Your task to perform on an android device: delete browsing data in the chrome app Image 0: 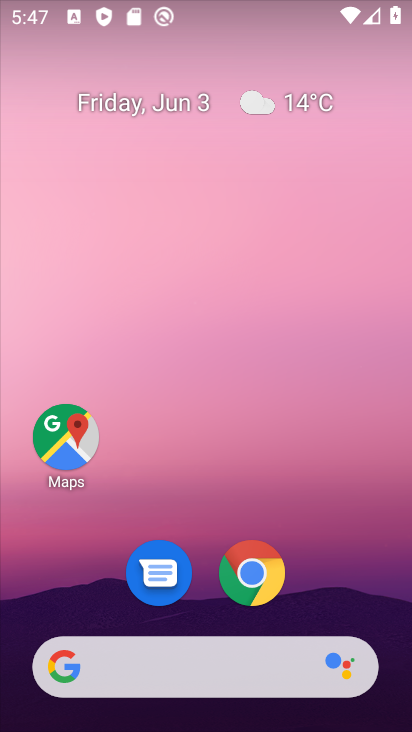
Step 0: drag from (250, 680) to (213, 95)
Your task to perform on an android device: delete browsing data in the chrome app Image 1: 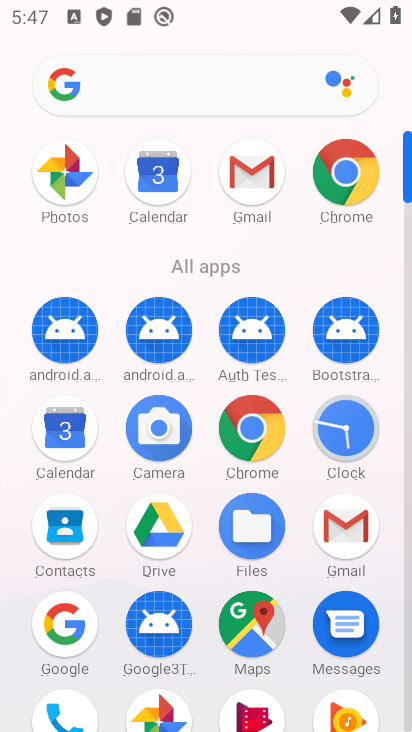
Step 1: click (252, 451)
Your task to perform on an android device: delete browsing data in the chrome app Image 2: 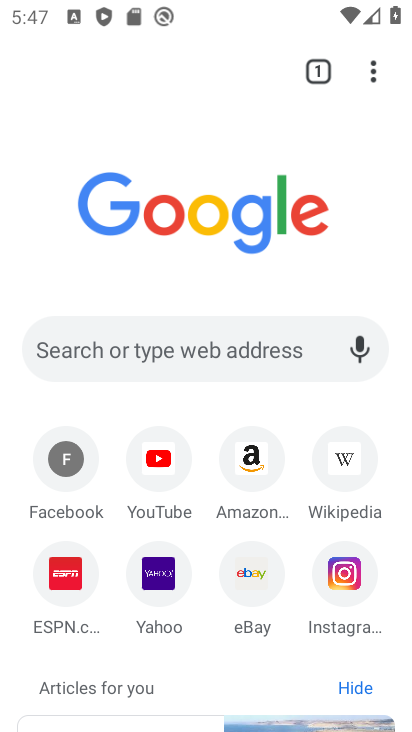
Step 2: drag from (375, 68) to (149, 609)
Your task to perform on an android device: delete browsing data in the chrome app Image 3: 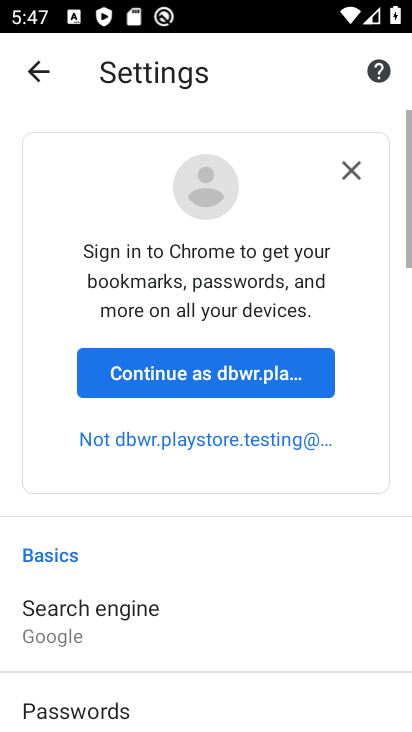
Step 3: drag from (175, 609) to (173, 115)
Your task to perform on an android device: delete browsing data in the chrome app Image 4: 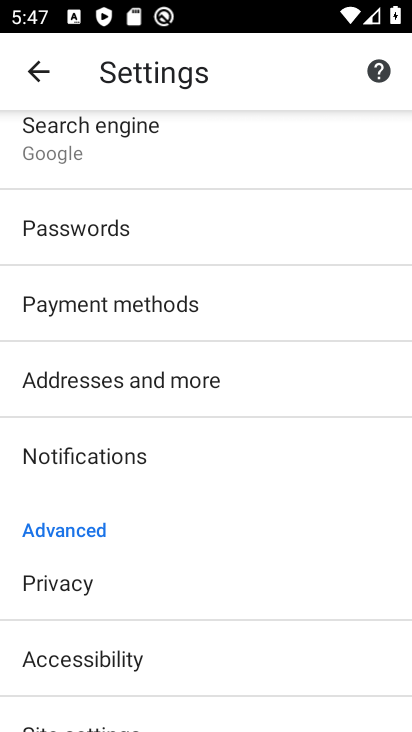
Step 4: click (110, 579)
Your task to perform on an android device: delete browsing data in the chrome app Image 5: 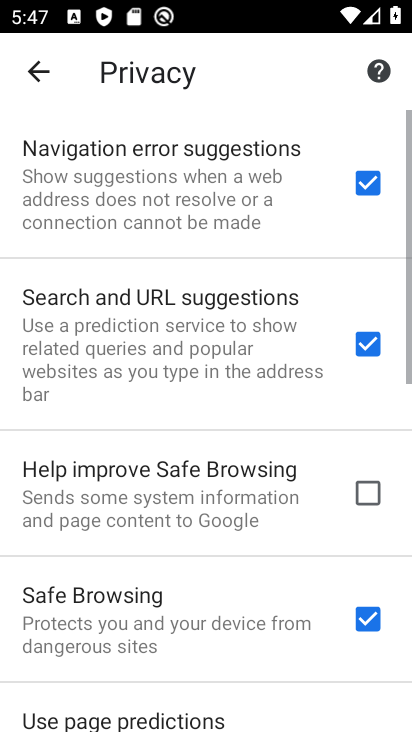
Step 5: drag from (231, 675) to (257, 55)
Your task to perform on an android device: delete browsing data in the chrome app Image 6: 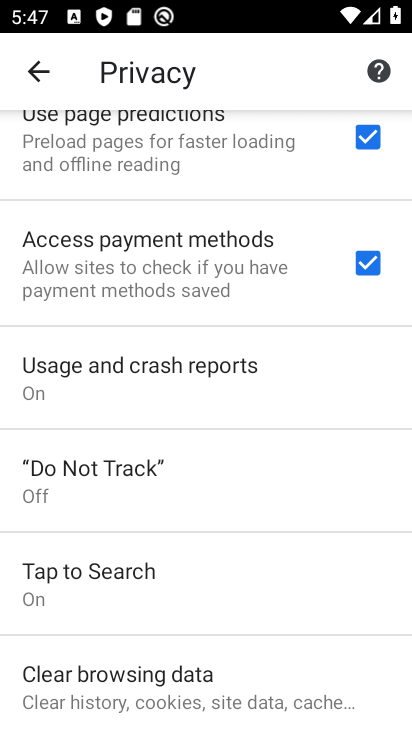
Step 6: drag from (260, 677) to (247, 248)
Your task to perform on an android device: delete browsing data in the chrome app Image 7: 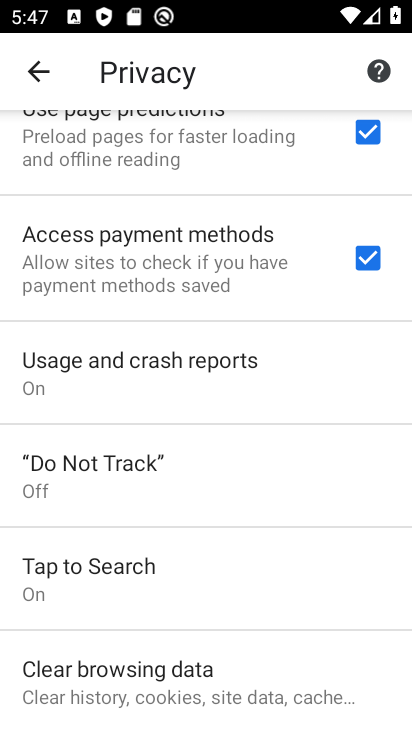
Step 7: click (232, 681)
Your task to perform on an android device: delete browsing data in the chrome app Image 8: 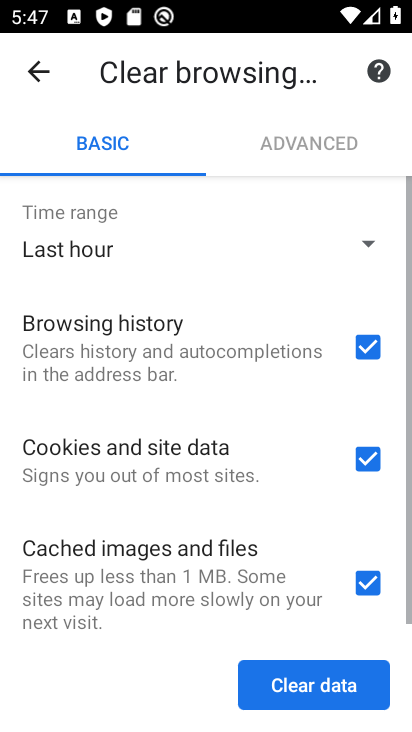
Step 8: click (317, 679)
Your task to perform on an android device: delete browsing data in the chrome app Image 9: 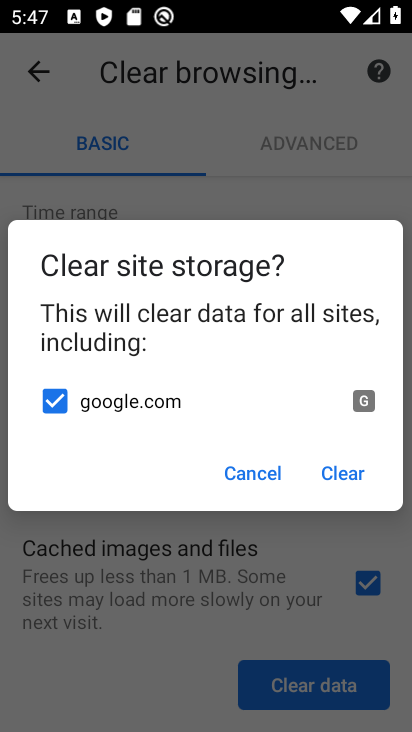
Step 9: click (340, 468)
Your task to perform on an android device: delete browsing data in the chrome app Image 10: 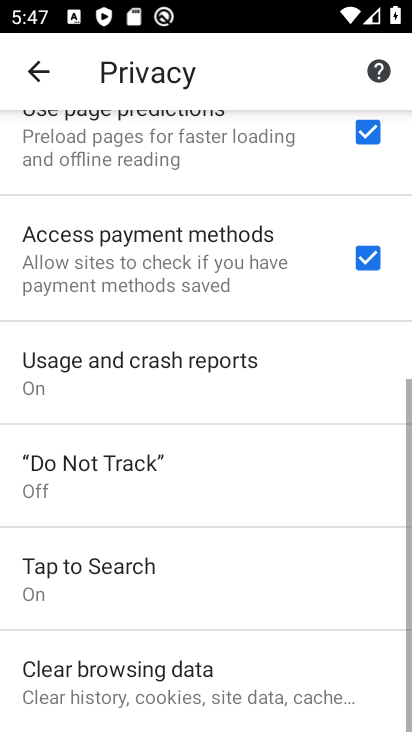
Step 10: task complete